Your task to perform on an android device: Open Chrome and go to the settings page Image 0: 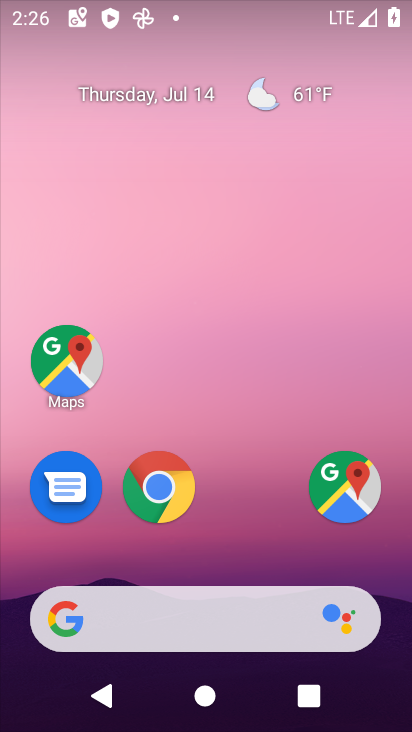
Step 0: drag from (244, 532) to (289, 75)
Your task to perform on an android device: Open Chrome and go to the settings page Image 1: 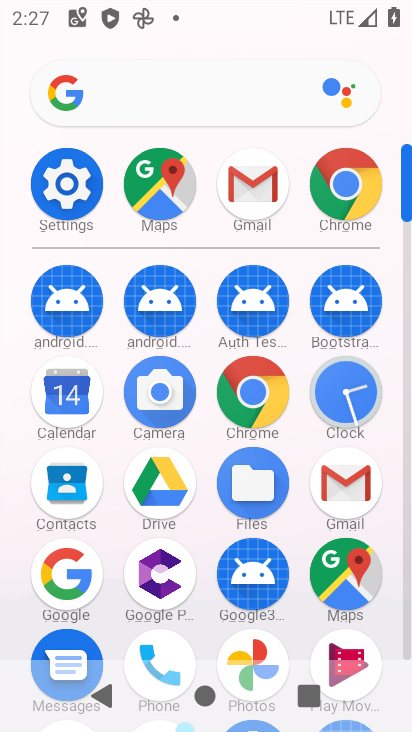
Step 1: click (247, 403)
Your task to perform on an android device: Open Chrome and go to the settings page Image 2: 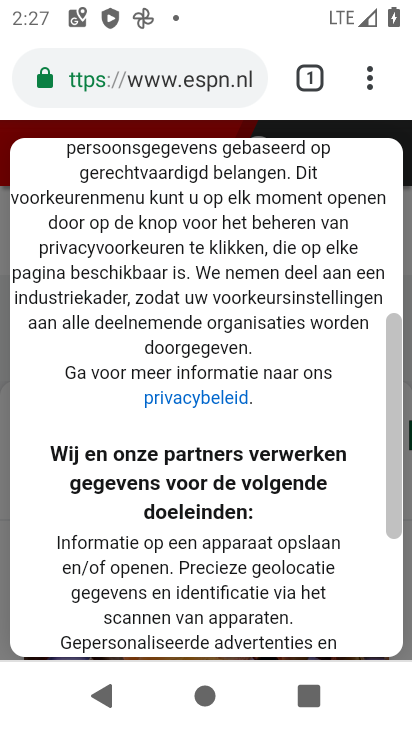
Step 2: click (368, 83)
Your task to perform on an android device: Open Chrome and go to the settings page Image 3: 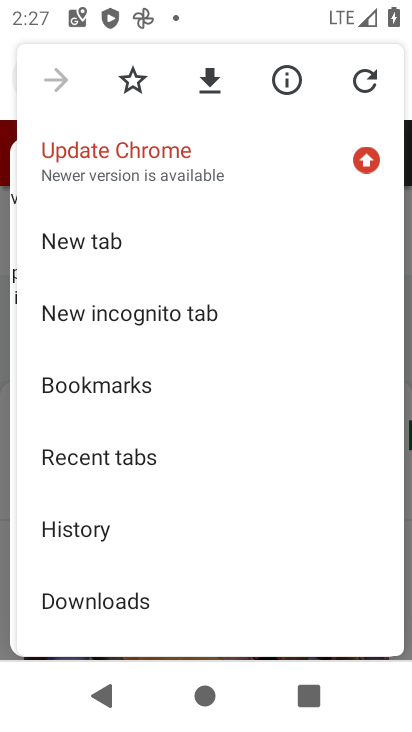
Step 3: drag from (322, 459) to (320, 382)
Your task to perform on an android device: Open Chrome and go to the settings page Image 4: 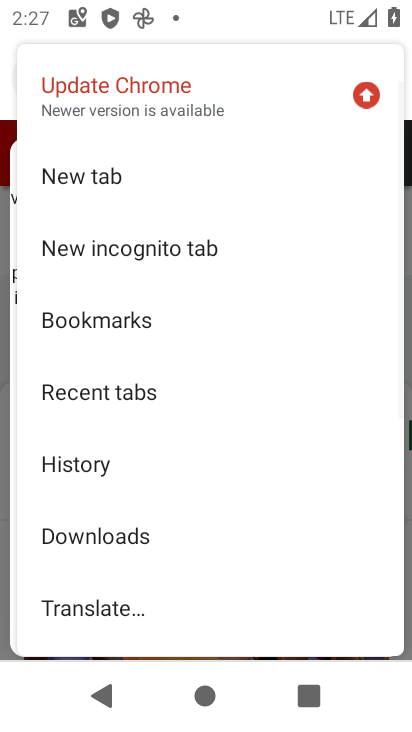
Step 4: drag from (320, 493) to (328, 355)
Your task to perform on an android device: Open Chrome and go to the settings page Image 5: 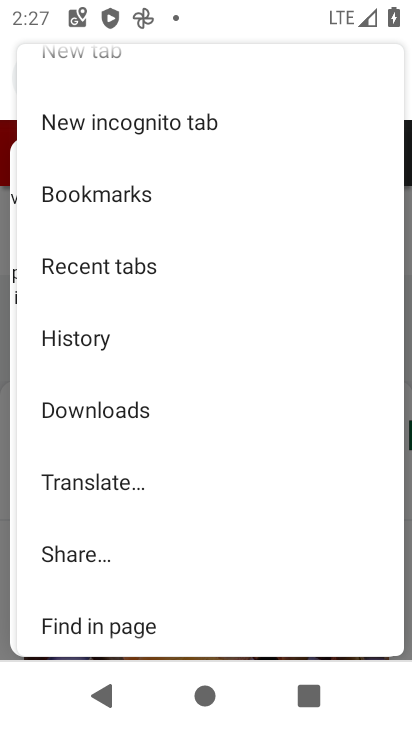
Step 5: drag from (284, 509) to (279, 396)
Your task to perform on an android device: Open Chrome and go to the settings page Image 6: 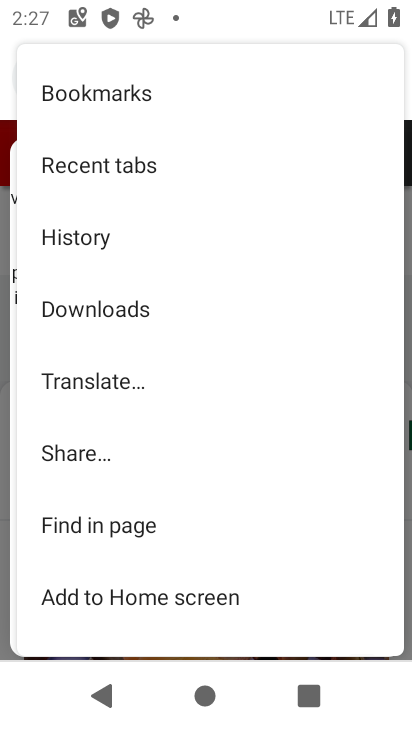
Step 6: drag from (295, 489) to (296, 313)
Your task to perform on an android device: Open Chrome and go to the settings page Image 7: 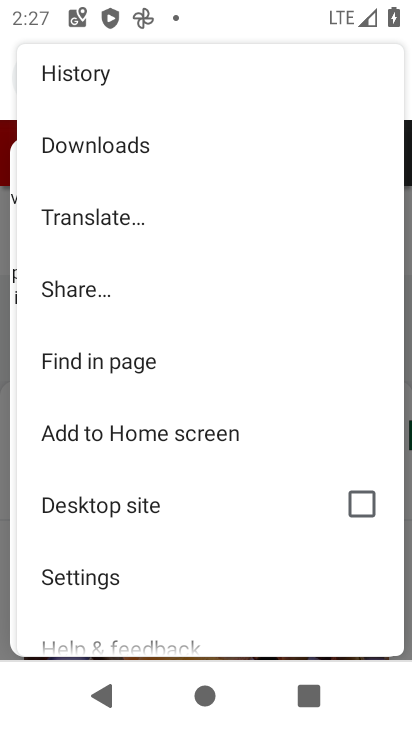
Step 7: drag from (269, 508) to (282, 381)
Your task to perform on an android device: Open Chrome and go to the settings page Image 8: 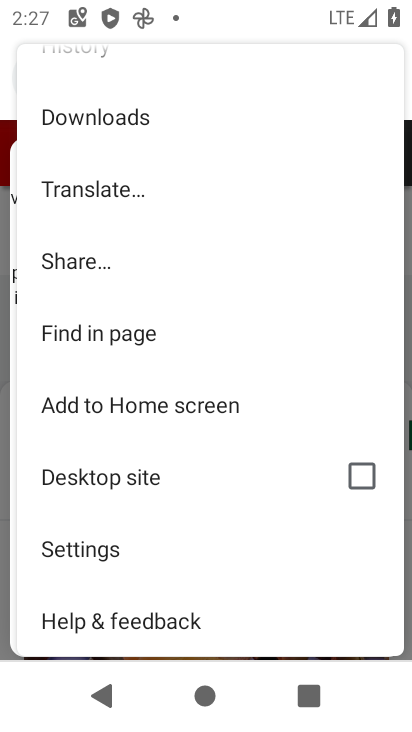
Step 8: click (206, 551)
Your task to perform on an android device: Open Chrome and go to the settings page Image 9: 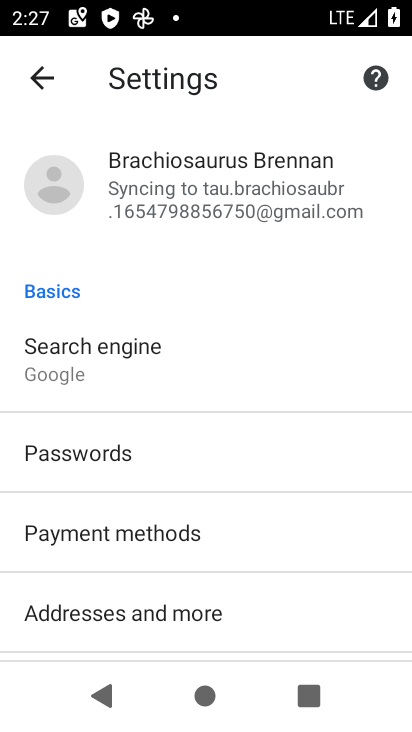
Step 9: task complete